Your task to perform on an android device: Open Google Image 0: 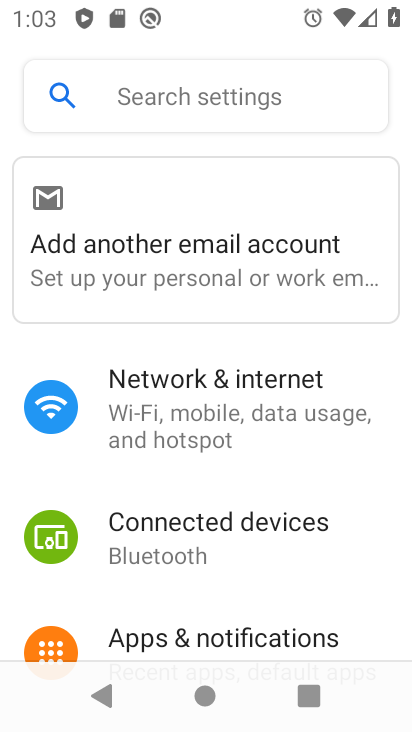
Step 0: drag from (316, 568) to (342, 238)
Your task to perform on an android device: Open Google Image 1: 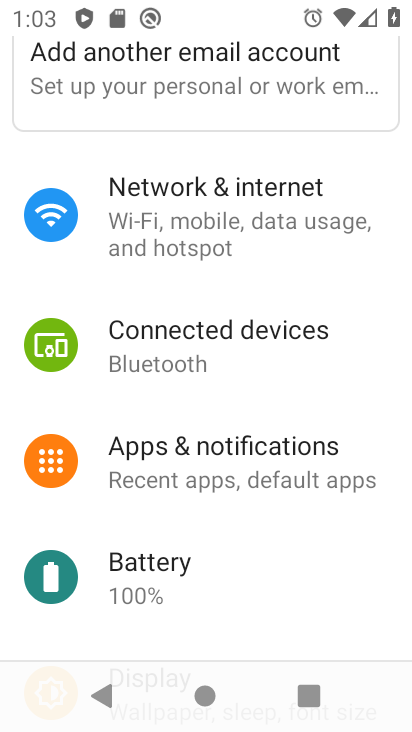
Step 1: drag from (312, 590) to (316, 320)
Your task to perform on an android device: Open Google Image 2: 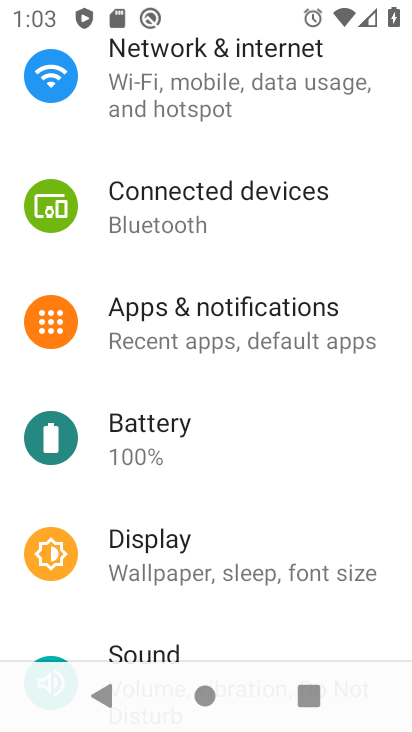
Step 2: drag from (312, 205) to (284, 604)
Your task to perform on an android device: Open Google Image 3: 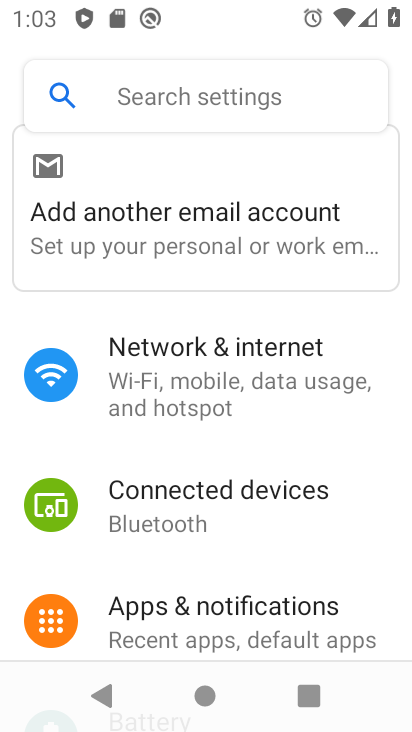
Step 3: press home button
Your task to perform on an android device: Open Google Image 4: 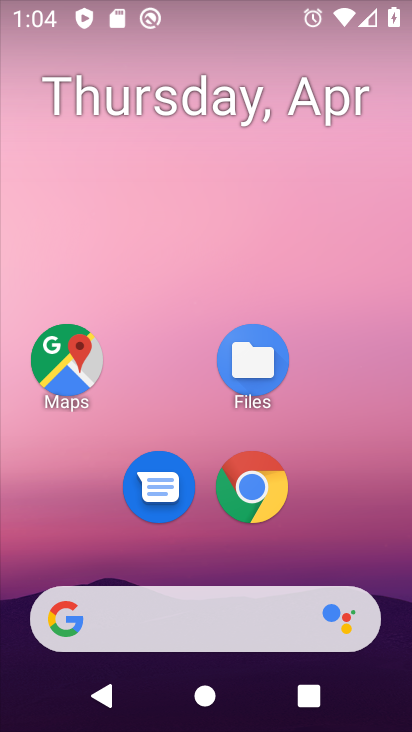
Step 4: drag from (373, 531) to (373, 206)
Your task to perform on an android device: Open Google Image 5: 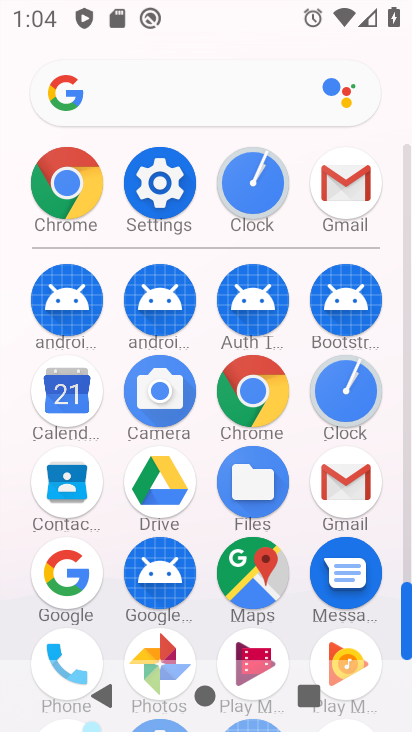
Step 5: click (85, 573)
Your task to perform on an android device: Open Google Image 6: 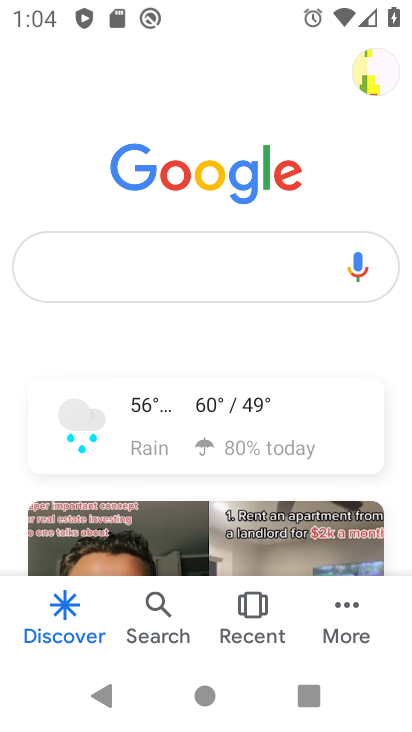
Step 6: task complete